Your task to perform on an android device: toggle wifi Image 0: 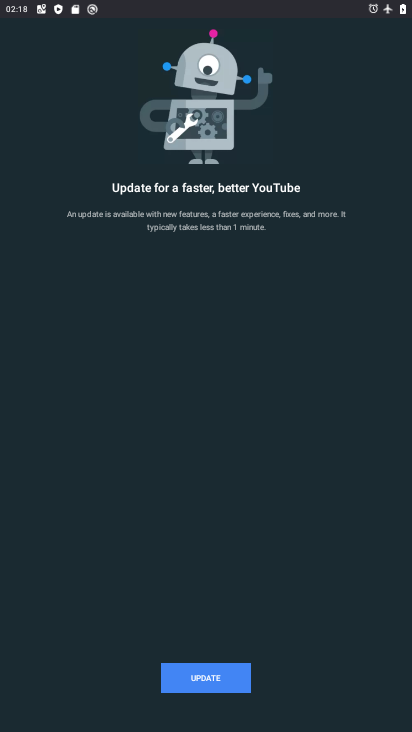
Step 0: press home button
Your task to perform on an android device: toggle wifi Image 1: 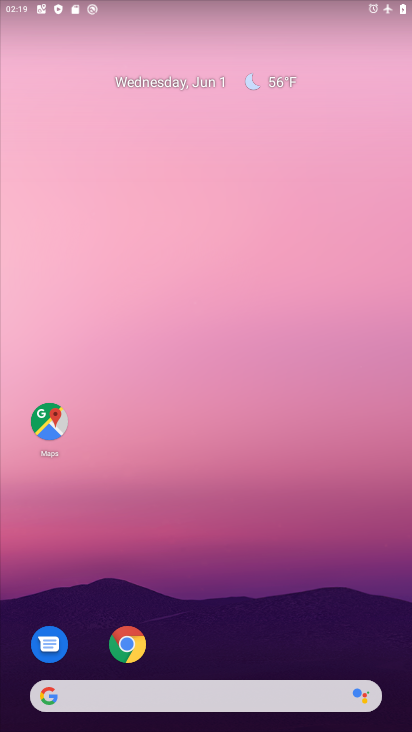
Step 1: drag from (190, 670) to (222, 390)
Your task to perform on an android device: toggle wifi Image 2: 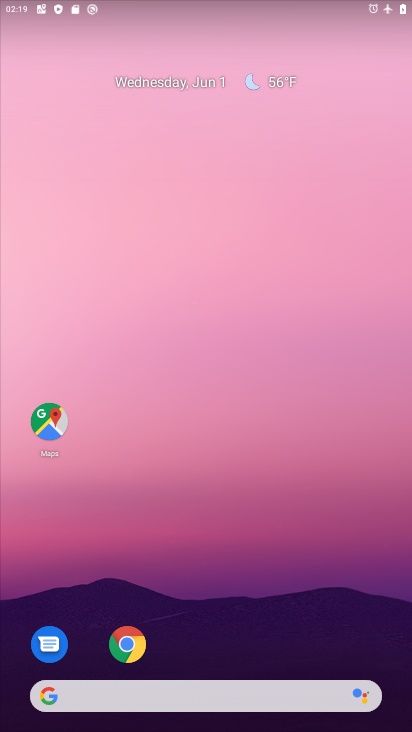
Step 2: drag from (296, 678) to (354, 213)
Your task to perform on an android device: toggle wifi Image 3: 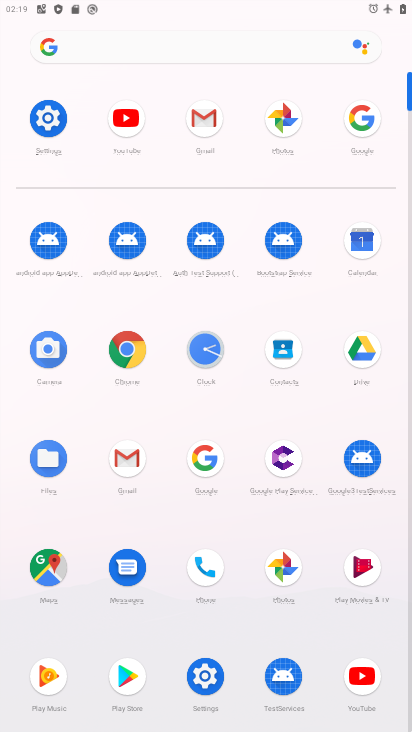
Step 3: click (58, 117)
Your task to perform on an android device: toggle wifi Image 4: 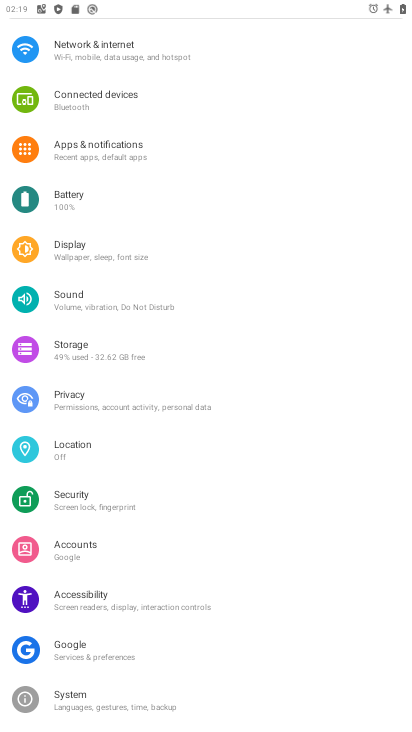
Step 4: click (117, 57)
Your task to perform on an android device: toggle wifi Image 5: 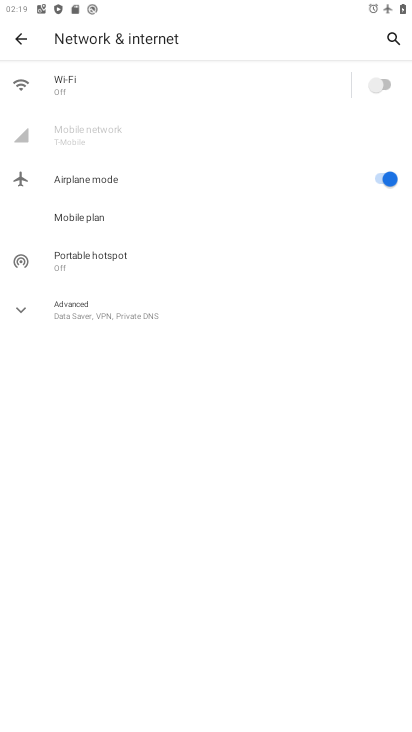
Step 5: click (388, 89)
Your task to perform on an android device: toggle wifi Image 6: 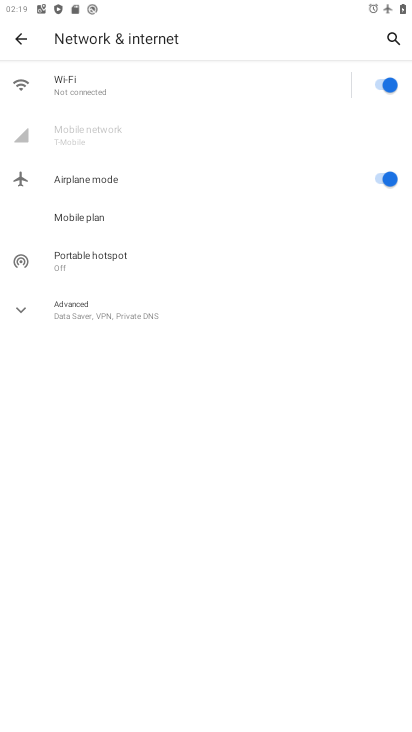
Step 6: task complete